Your task to perform on an android device: add a contact Image 0: 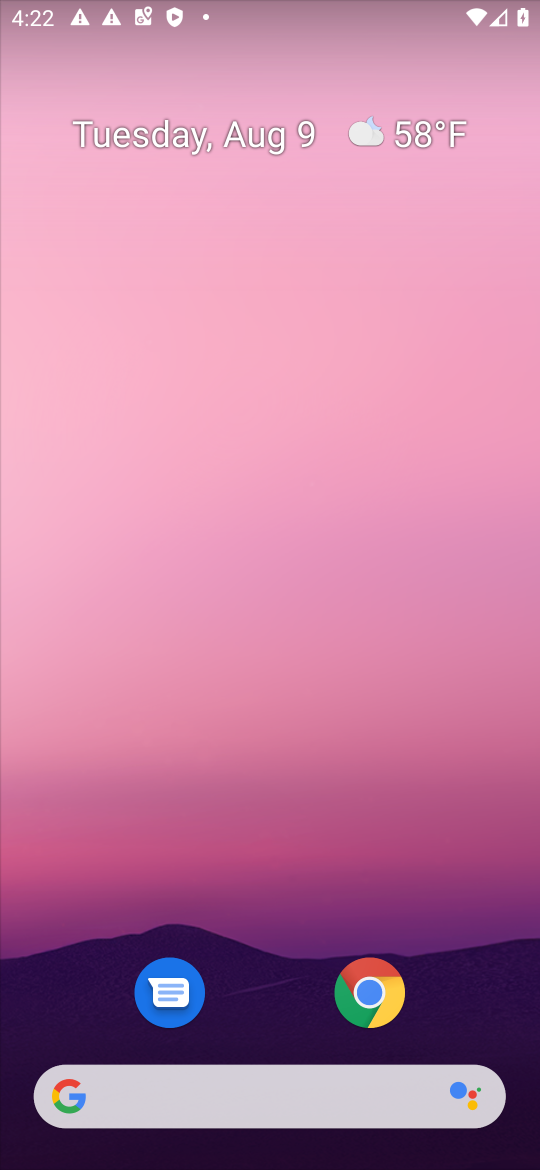
Step 0: drag from (382, 1082) to (526, 529)
Your task to perform on an android device: add a contact Image 1: 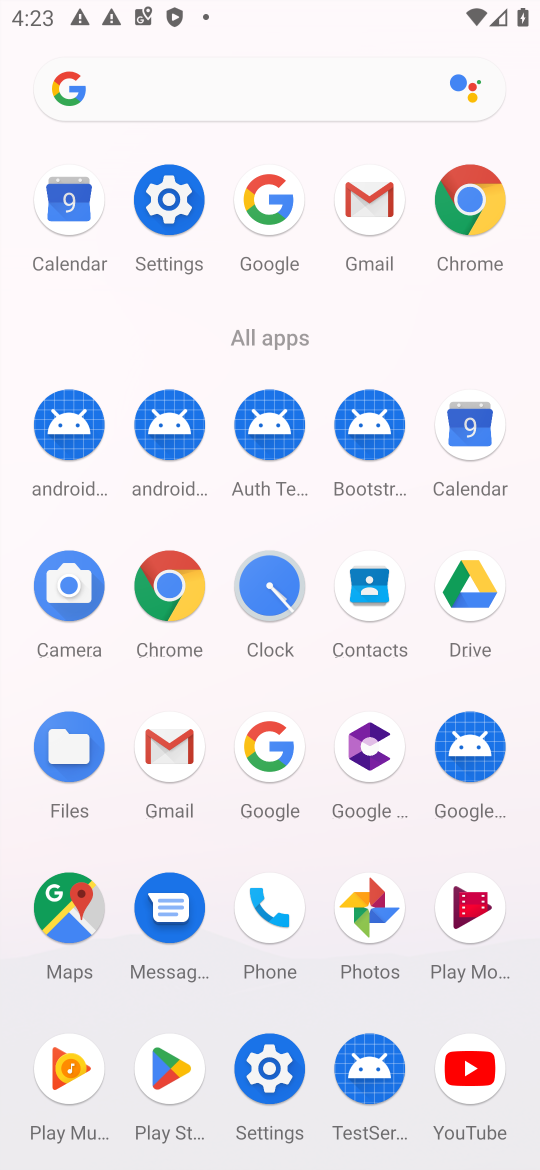
Step 1: click (389, 581)
Your task to perform on an android device: add a contact Image 2: 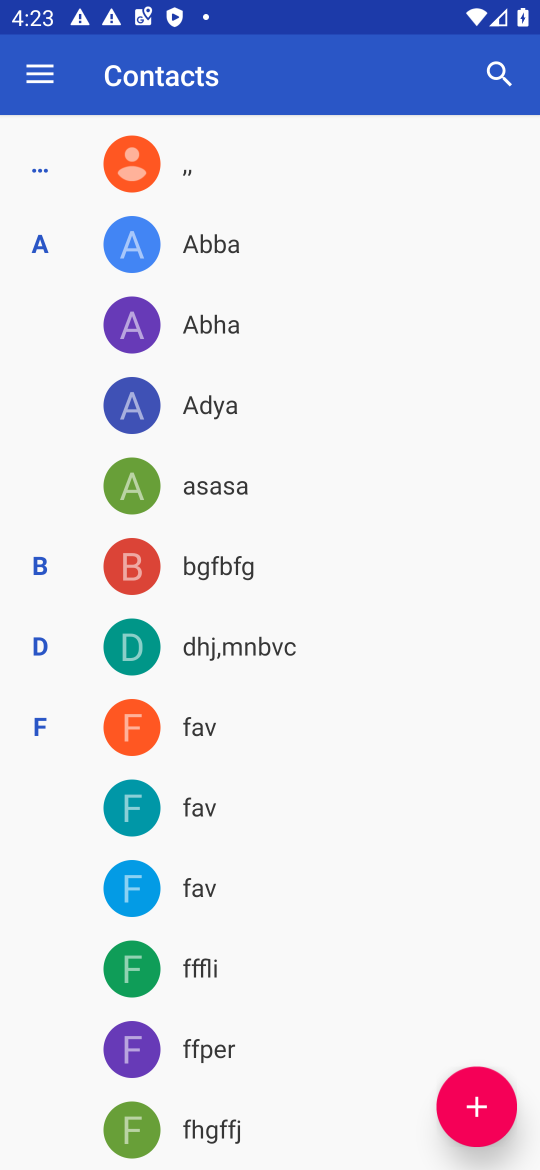
Step 2: click (470, 1121)
Your task to perform on an android device: add a contact Image 3: 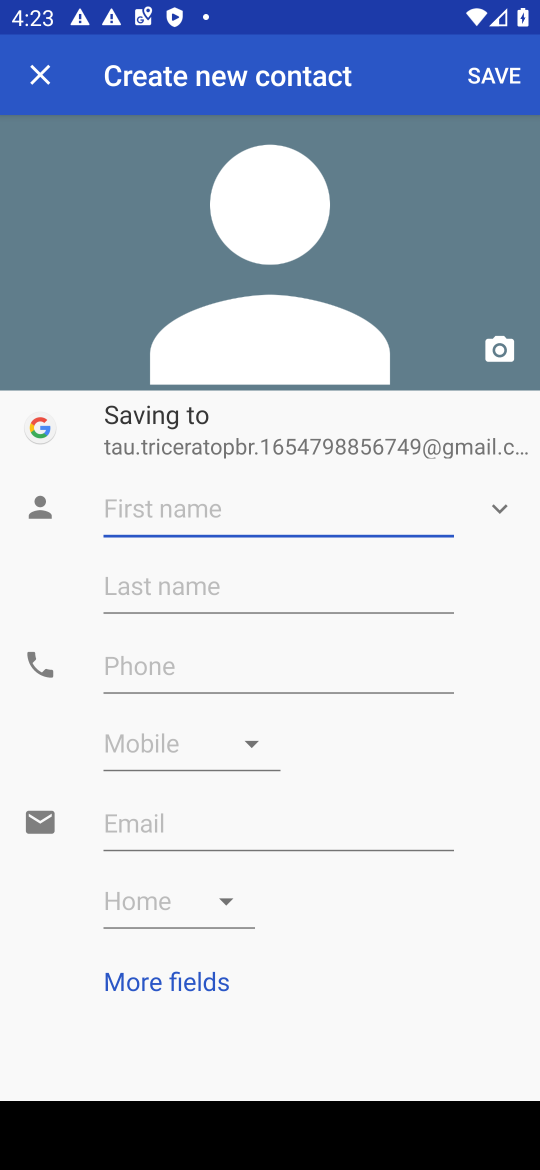
Step 3: type "hjfdf]\"
Your task to perform on an android device: add a contact Image 4: 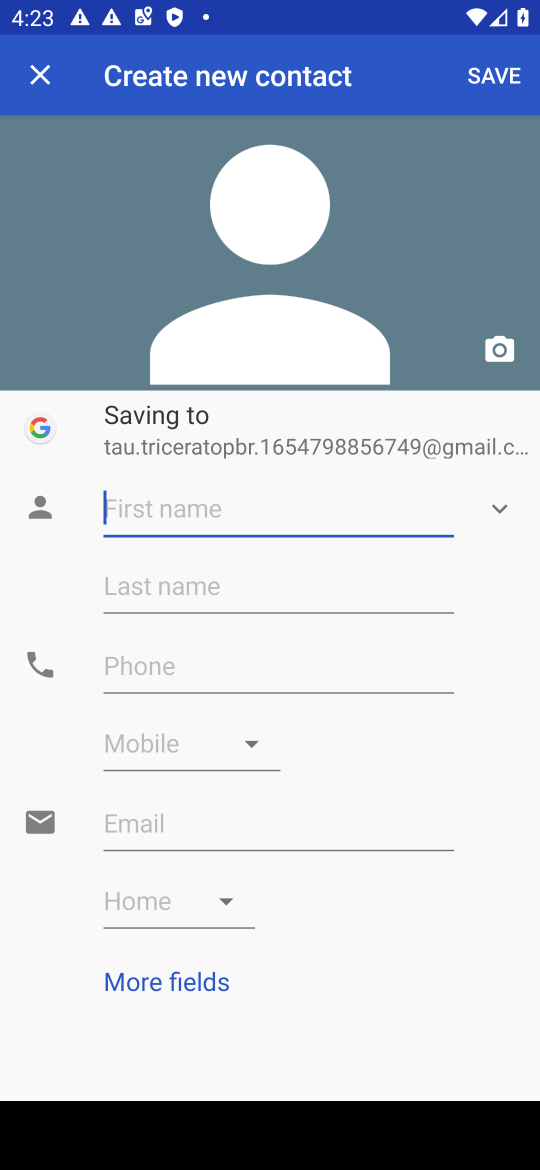
Step 4: click (326, 678)
Your task to perform on an android device: add a contact Image 5: 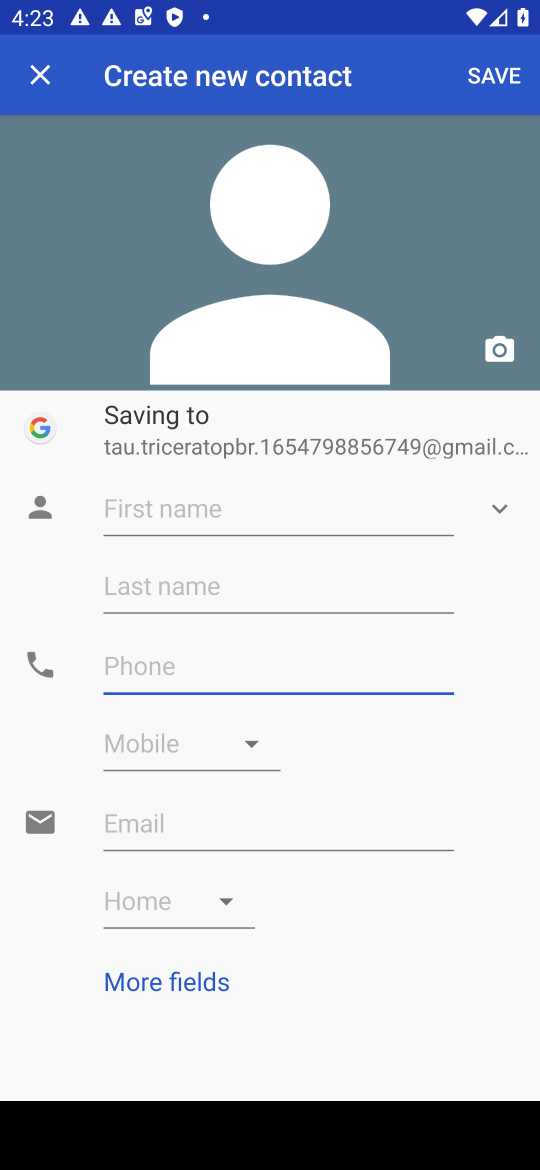
Step 5: type "9876655455"
Your task to perform on an android device: add a contact Image 6: 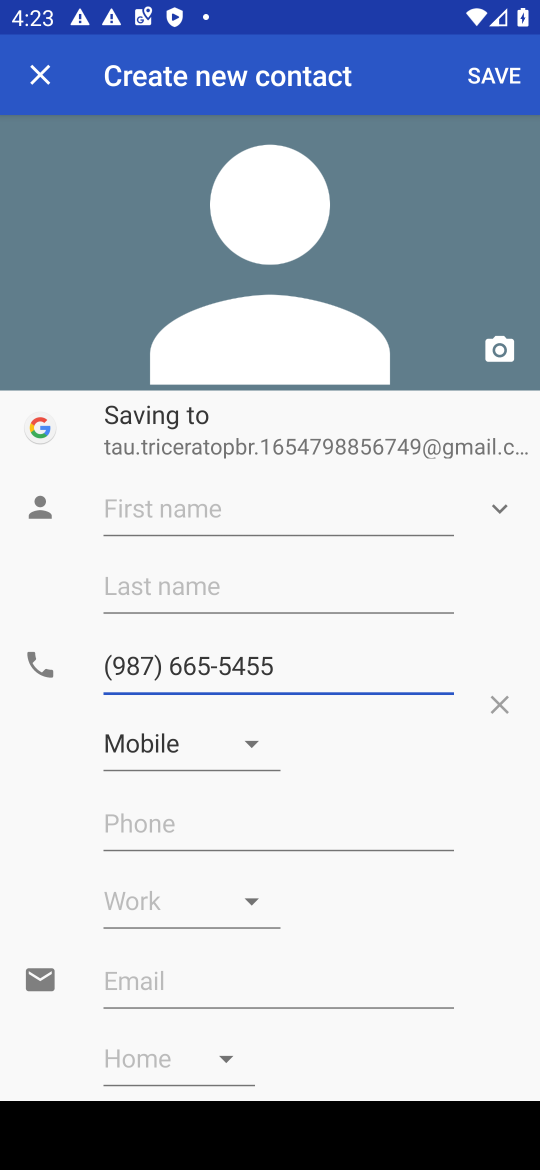
Step 6: click (232, 511)
Your task to perform on an android device: add a contact Image 7: 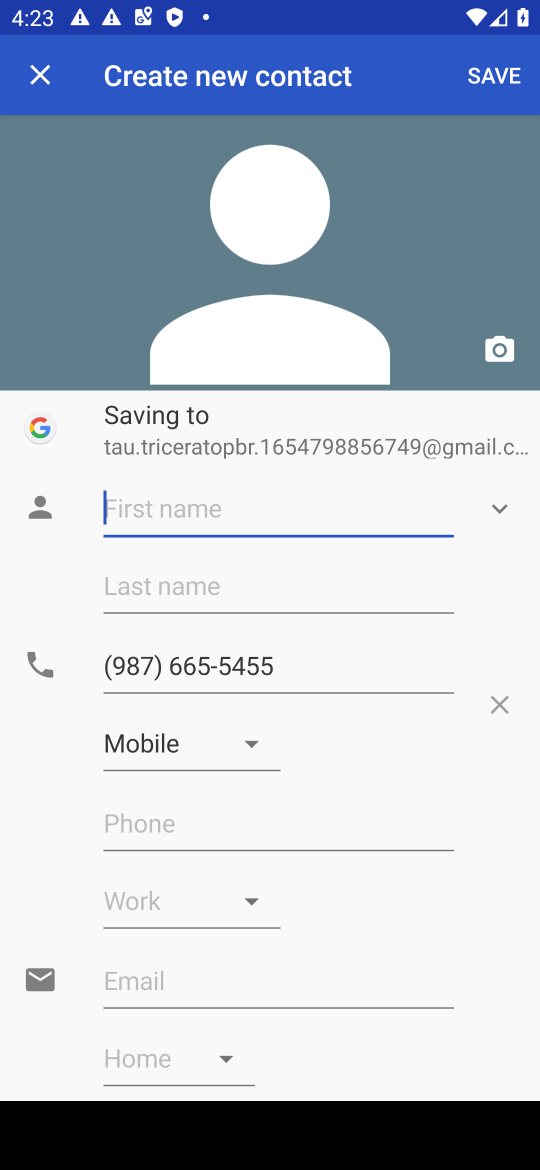
Step 7: type "jhhhgjfhd"
Your task to perform on an android device: add a contact Image 8: 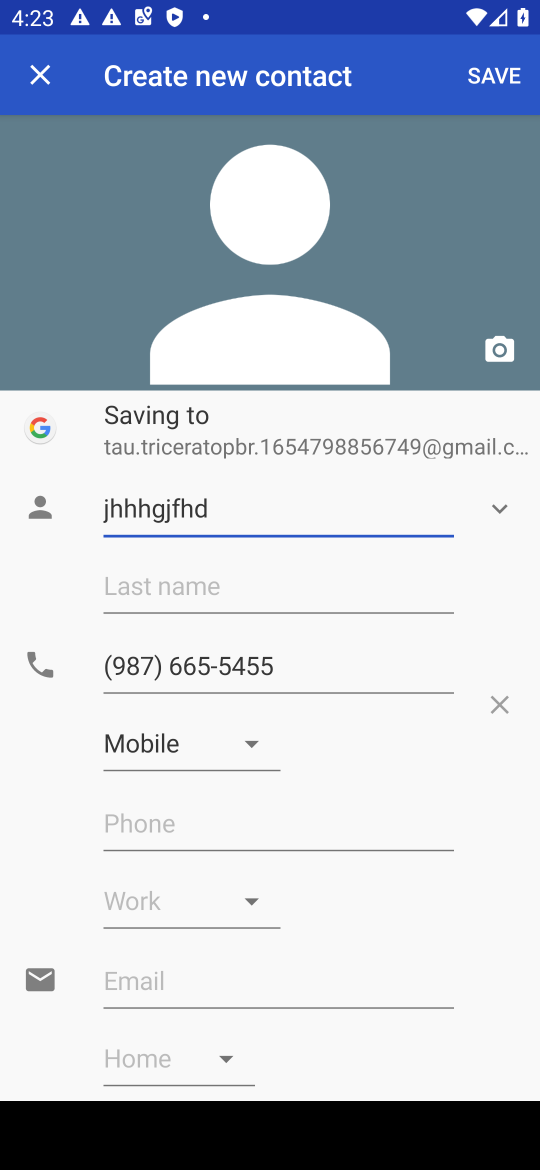
Step 8: click (506, 63)
Your task to perform on an android device: add a contact Image 9: 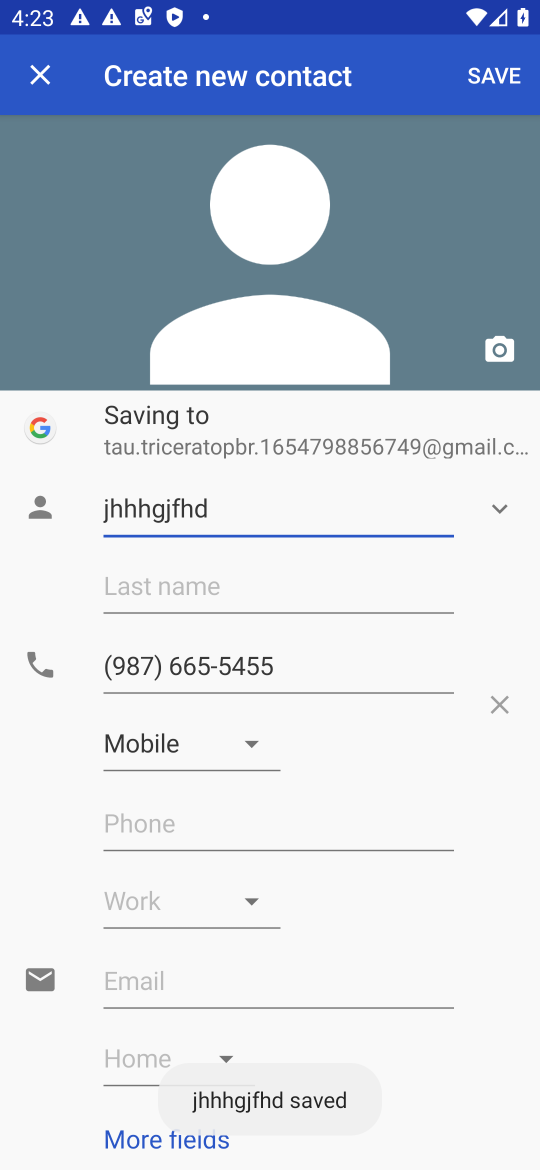
Step 9: task complete